Your task to perform on an android device: open a bookmark in the chrome app Image 0: 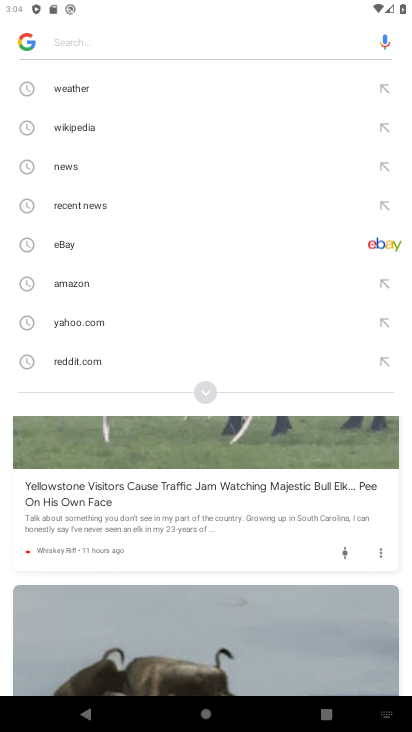
Step 0: press home button
Your task to perform on an android device: open a bookmark in the chrome app Image 1: 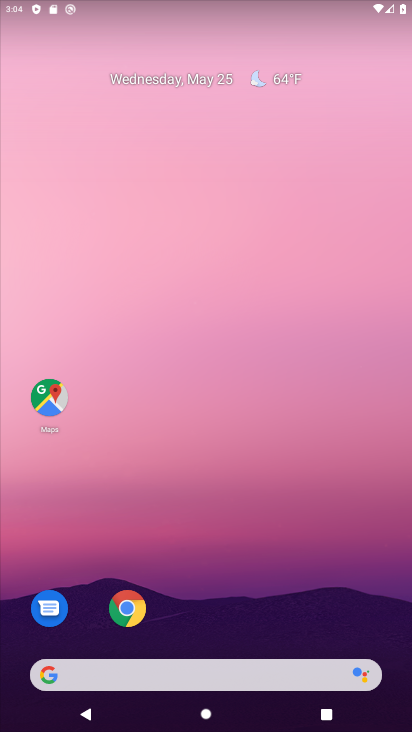
Step 1: drag from (188, 564) to (217, 159)
Your task to perform on an android device: open a bookmark in the chrome app Image 2: 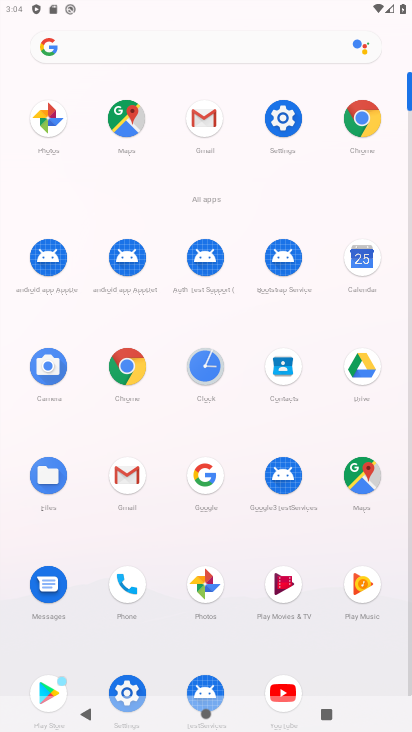
Step 2: click (133, 370)
Your task to perform on an android device: open a bookmark in the chrome app Image 3: 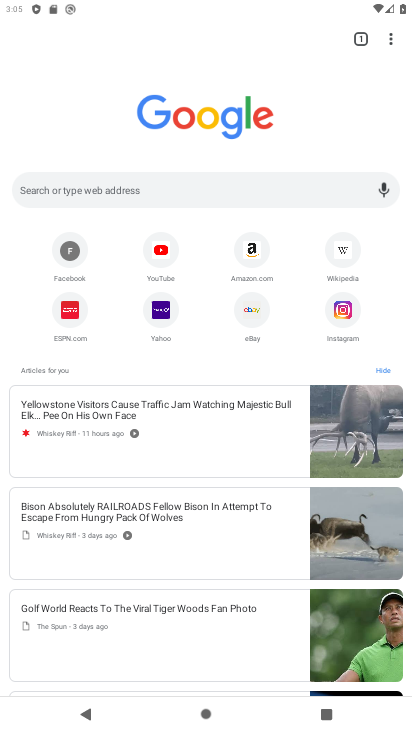
Step 3: drag from (395, 41) to (269, 152)
Your task to perform on an android device: open a bookmark in the chrome app Image 4: 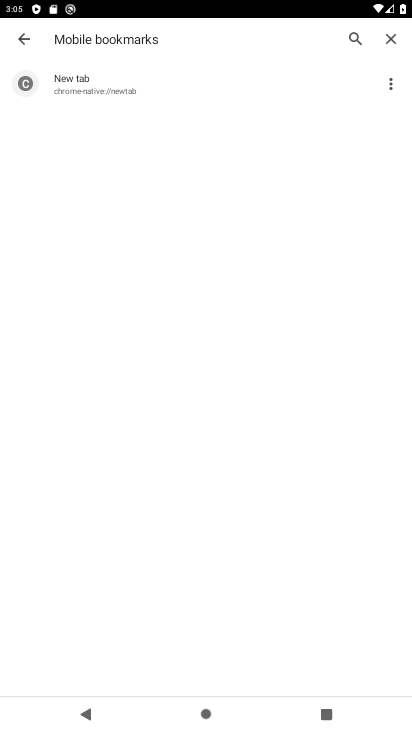
Step 4: click (110, 91)
Your task to perform on an android device: open a bookmark in the chrome app Image 5: 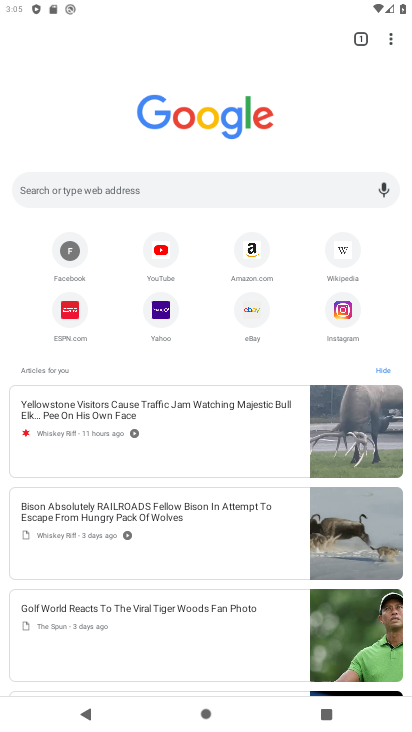
Step 5: task complete